Your task to perform on an android device: change the clock display to show seconds Image 0: 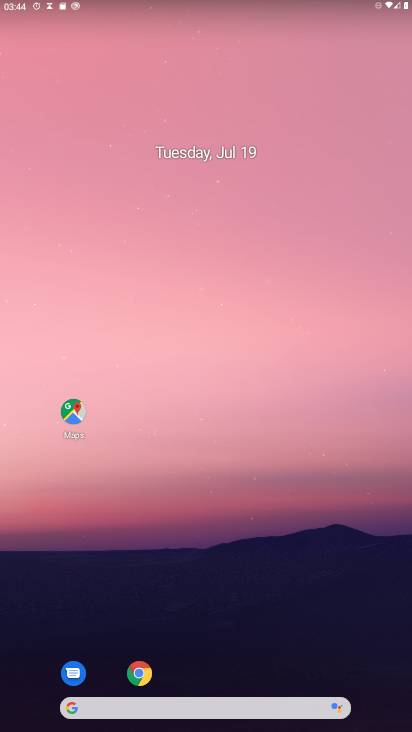
Step 0: drag from (191, 656) to (146, 5)
Your task to perform on an android device: change the clock display to show seconds Image 1: 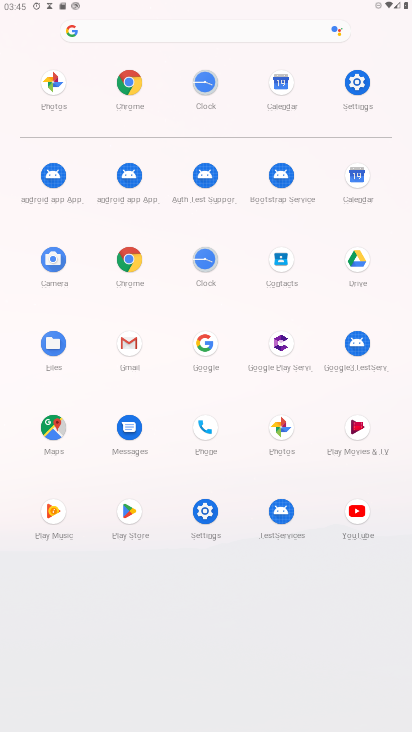
Step 1: click (202, 263)
Your task to perform on an android device: change the clock display to show seconds Image 2: 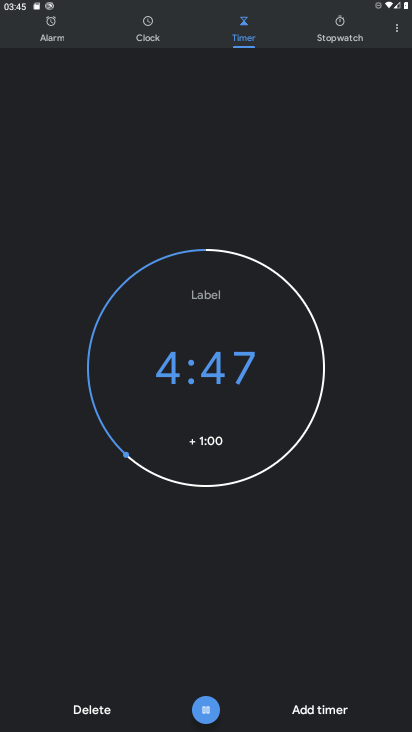
Step 2: click (391, 26)
Your task to perform on an android device: change the clock display to show seconds Image 3: 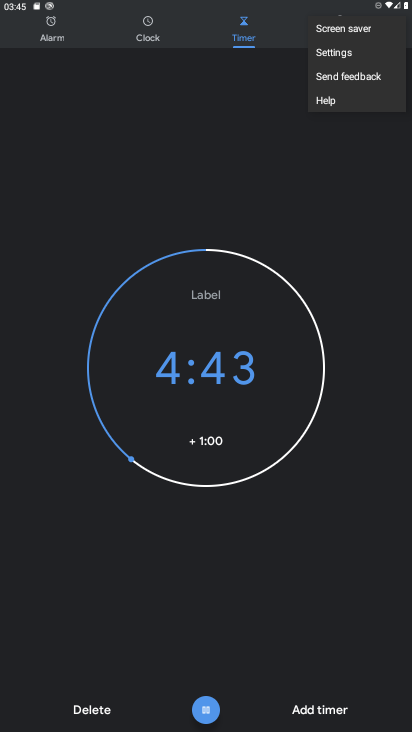
Step 3: click (329, 53)
Your task to perform on an android device: change the clock display to show seconds Image 4: 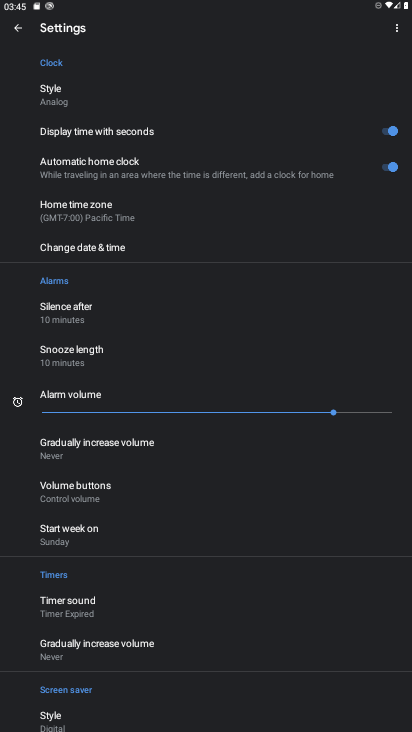
Step 4: click (65, 104)
Your task to perform on an android device: change the clock display to show seconds Image 5: 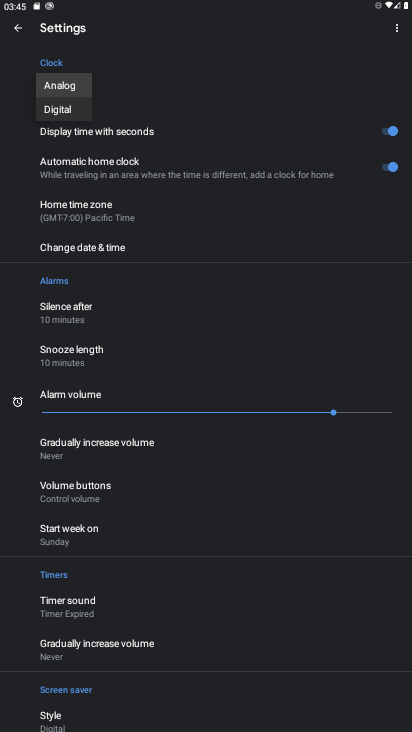
Step 5: click (67, 112)
Your task to perform on an android device: change the clock display to show seconds Image 6: 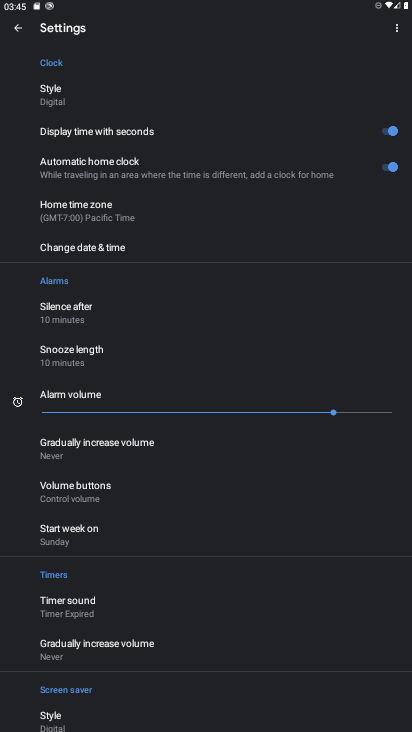
Step 6: task complete